Your task to perform on an android device: turn off javascript in the chrome app Image 0: 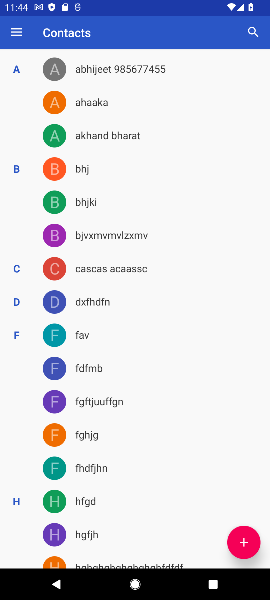
Step 0: press home button
Your task to perform on an android device: turn off javascript in the chrome app Image 1: 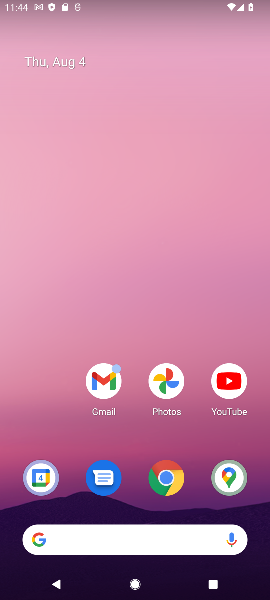
Step 1: click (175, 477)
Your task to perform on an android device: turn off javascript in the chrome app Image 2: 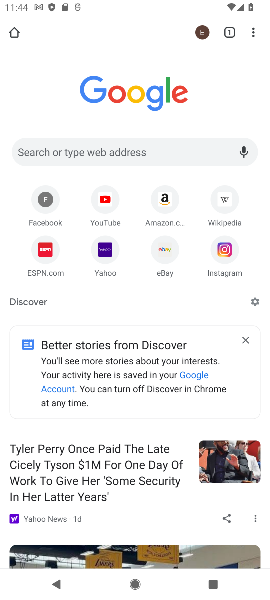
Step 2: drag from (251, 29) to (162, 278)
Your task to perform on an android device: turn off javascript in the chrome app Image 3: 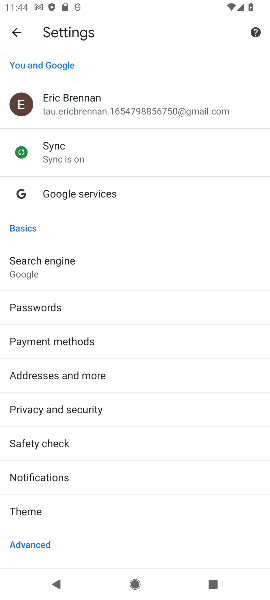
Step 3: drag from (95, 481) to (125, 259)
Your task to perform on an android device: turn off javascript in the chrome app Image 4: 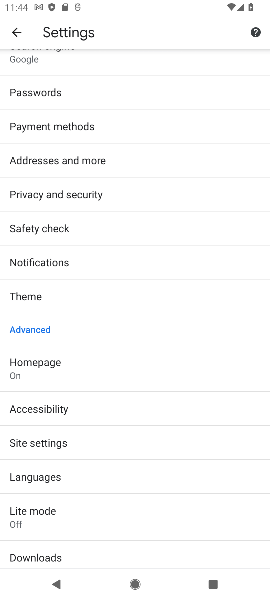
Step 4: click (39, 444)
Your task to perform on an android device: turn off javascript in the chrome app Image 5: 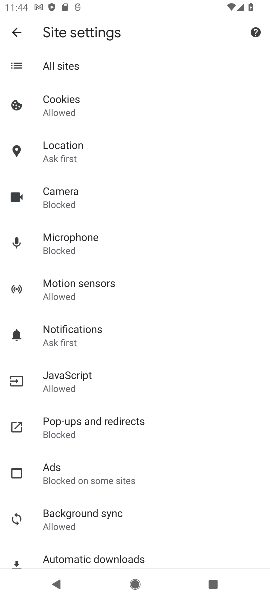
Step 5: click (95, 381)
Your task to perform on an android device: turn off javascript in the chrome app Image 6: 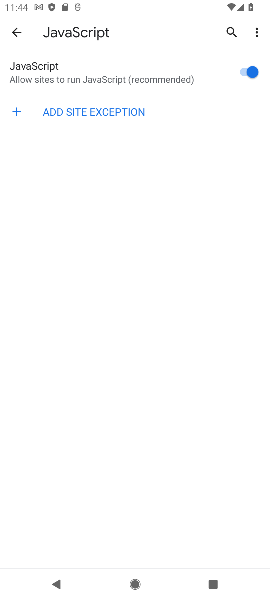
Step 6: click (205, 76)
Your task to perform on an android device: turn off javascript in the chrome app Image 7: 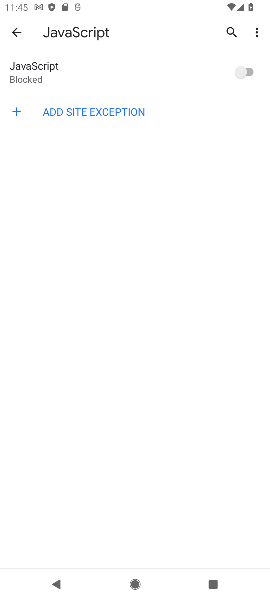
Step 7: task complete